Your task to perform on an android device: add a contact Image 0: 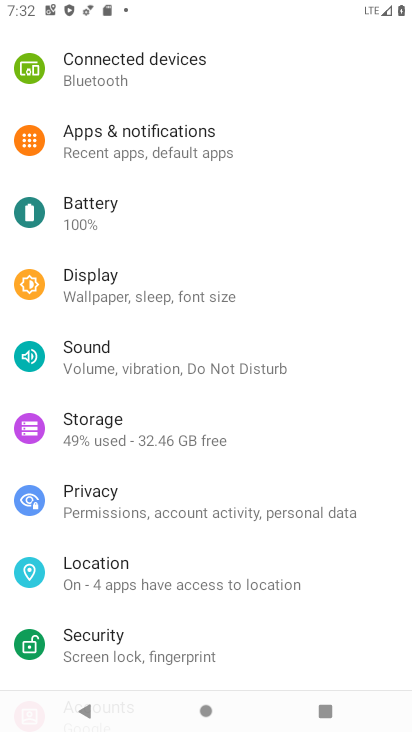
Step 0: press home button
Your task to perform on an android device: add a contact Image 1: 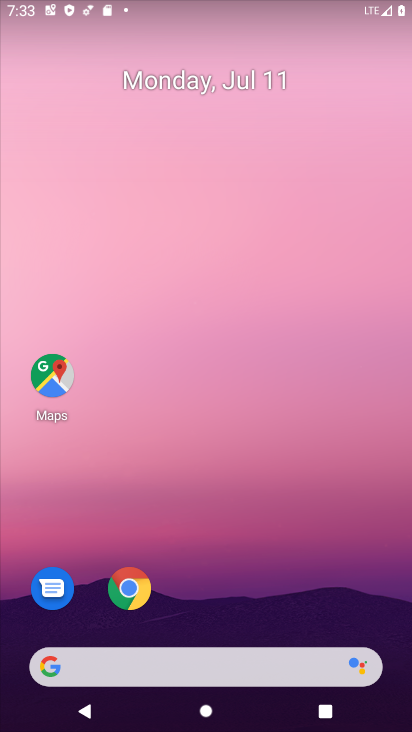
Step 1: drag from (299, 445) to (246, 251)
Your task to perform on an android device: add a contact Image 2: 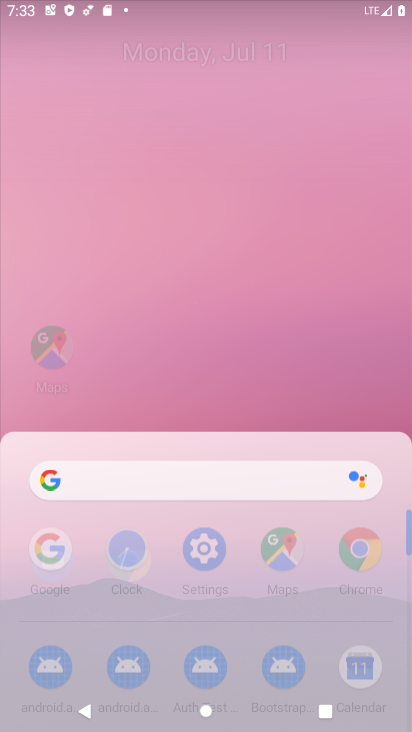
Step 2: click (246, 251)
Your task to perform on an android device: add a contact Image 3: 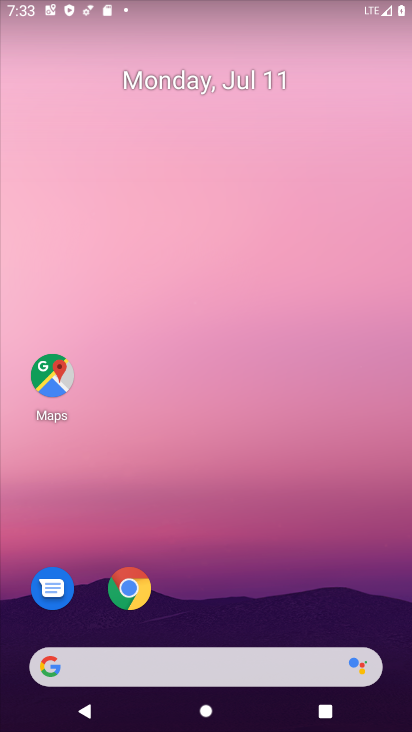
Step 3: drag from (396, 600) to (265, 65)
Your task to perform on an android device: add a contact Image 4: 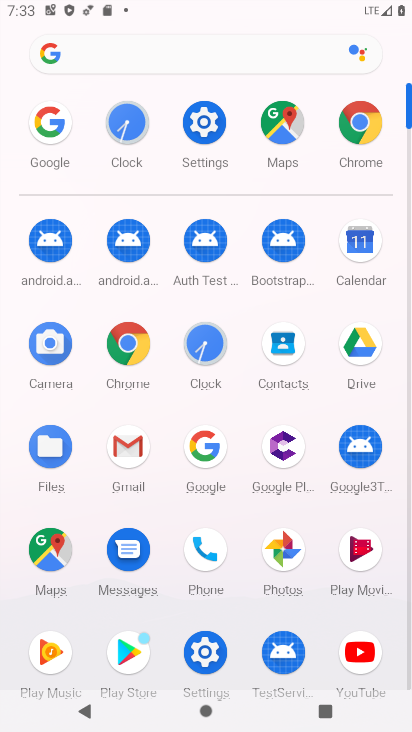
Step 4: click (293, 342)
Your task to perform on an android device: add a contact Image 5: 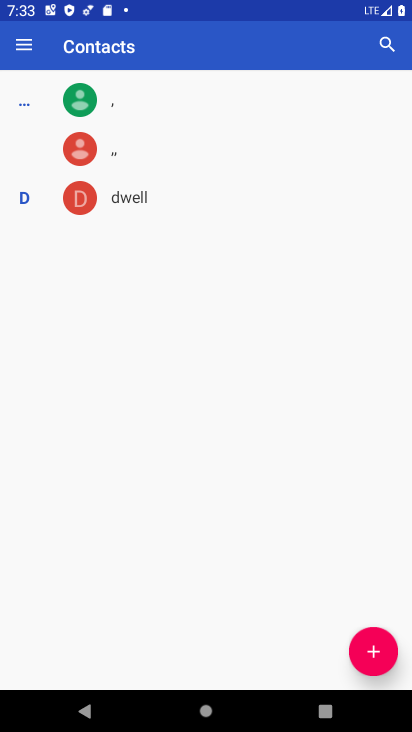
Step 5: click (385, 641)
Your task to perform on an android device: add a contact Image 6: 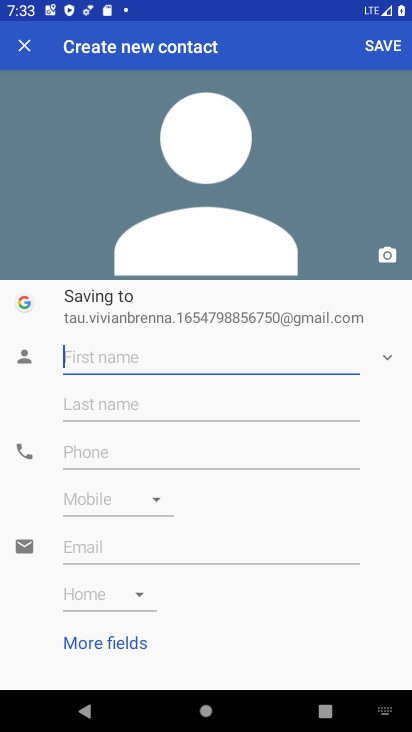
Step 6: type "devil"
Your task to perform on an android device: add a contact Image 7: 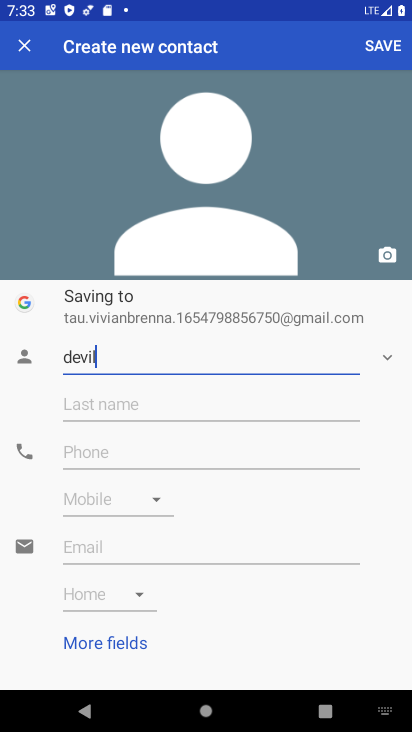
Step 7: click (386, 50)
Your task to perform on an android device: add a contact Image 8: 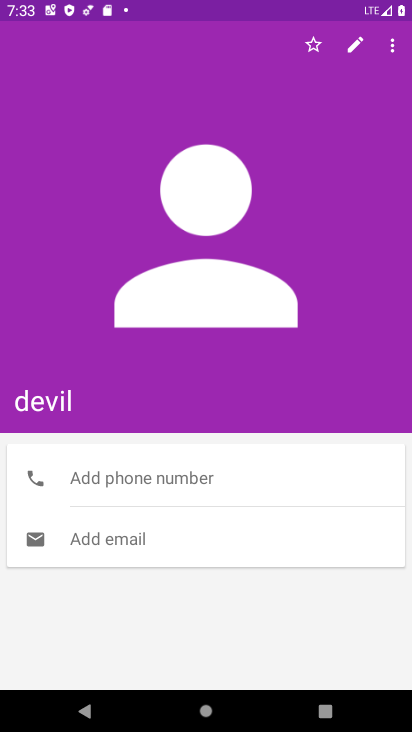
Step 8: task complete